Your task to perform on an android device: add a contact in the contacts app Image 0: 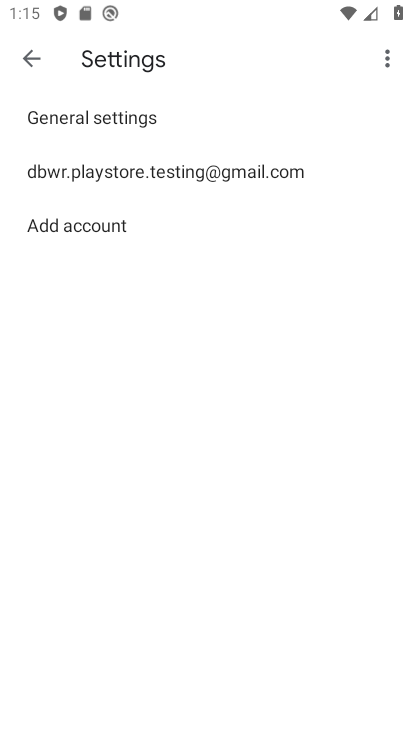
Step 0: press home button
Your task to perform on an android device: add a contact in the contacts app Image 1: 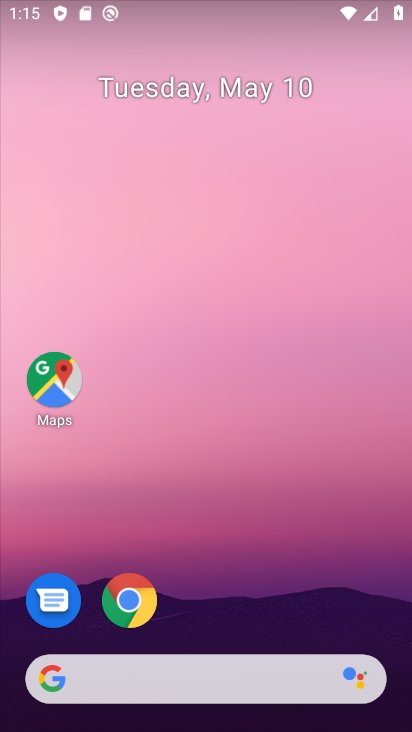
Step 1: drag from (231, 578) to (244, 178)
Your task to perform on an android device: add a contact in the contacts app Image 2: 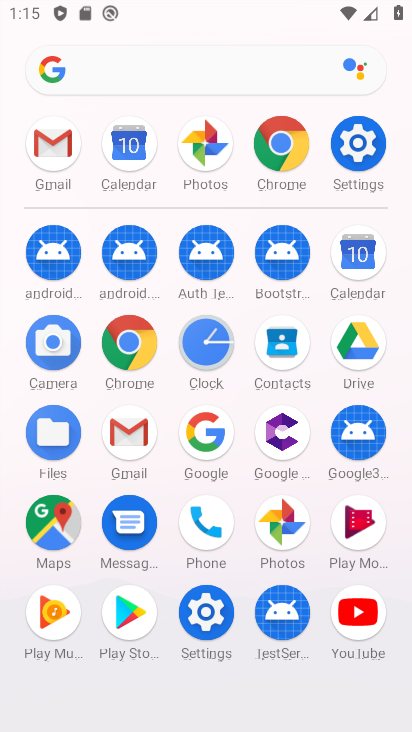
Step 2: click (284, 345)
Your task to perform on an android device: add a contact in the contacts app Image 3: 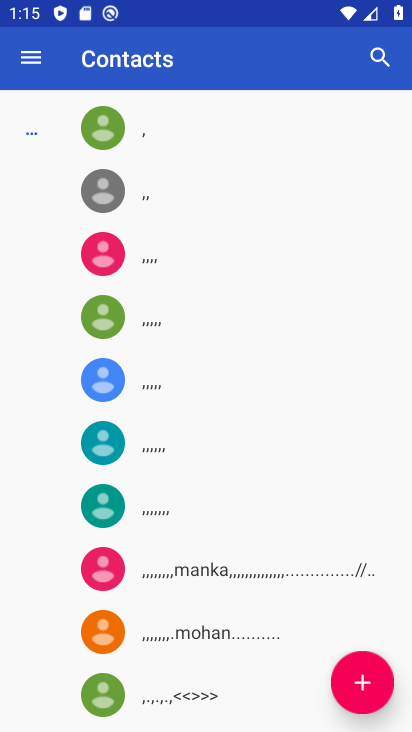
Step 3: click (371, 685)
Your task to perform on an android device: add a contact in the contacts app Image 4: 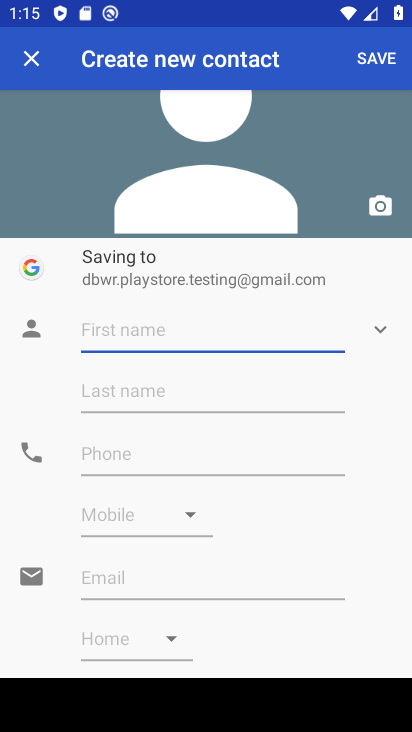
Step 4: click (172, 319)
Your task to perform on an android device: add a contact in the contacts app Image 5: 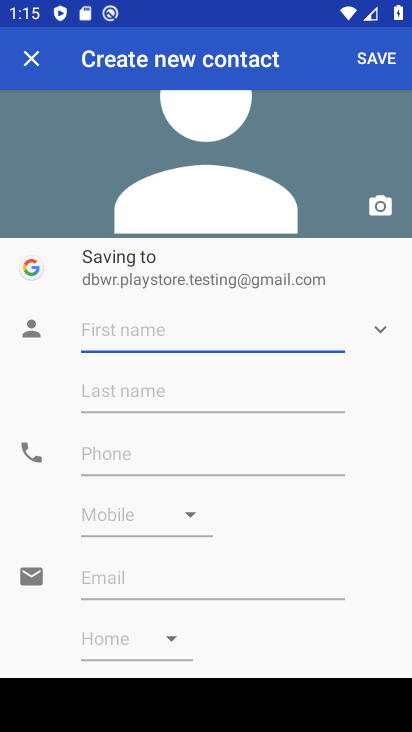
Step 5: type "jhfgghfk"
Your task to perform on an android device: add a contact in the contacts app Image 6: 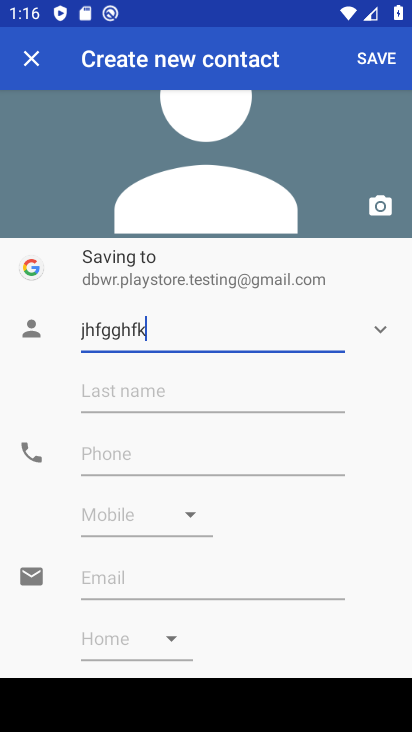
Step 6: click (121, 453)
Your task to perform on an android device: add a contact in the contacts app Image 7: 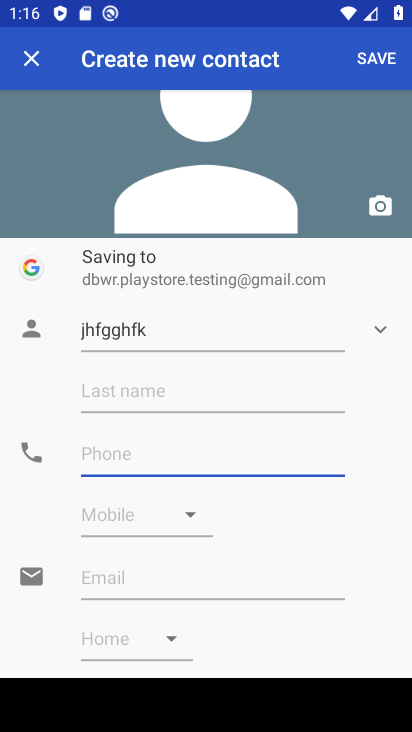
Step 7: type "8776574785"
Your task to perform on an android device: add a contact in the contacts app Image 8: 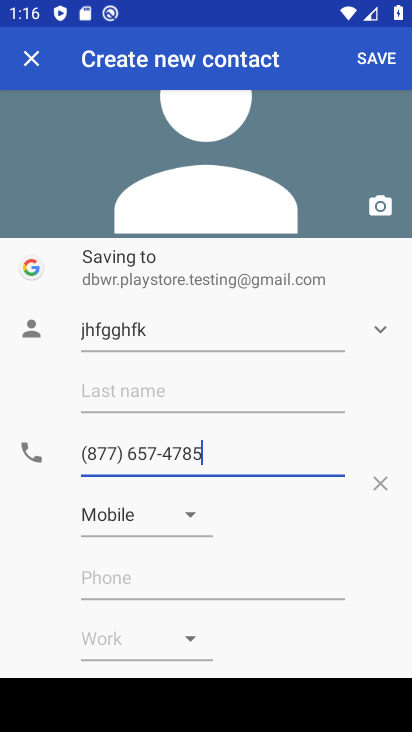
Step 8: click (375, 64)
Your task to perform on an android device: add a contact in the contacts app Image 9: 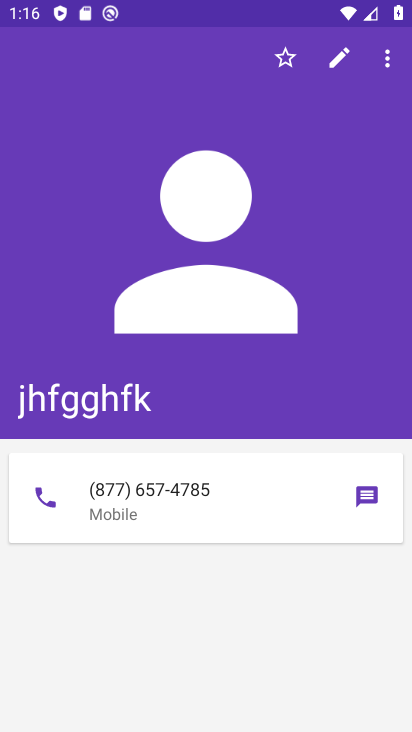
Step 9: task complete